Your task to perform on an android device: refresh tabs in the chrome app Image 0: 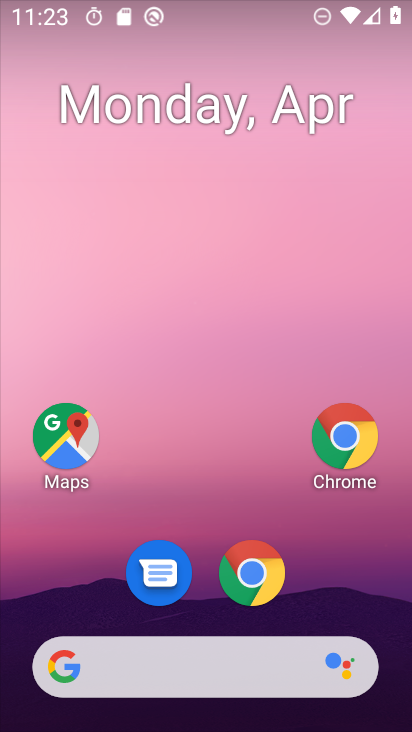
Step 0: drag from (385, 558) to (291, 39)
Your task to perform on an android device: refresh tabs in the chrome app Image 1: 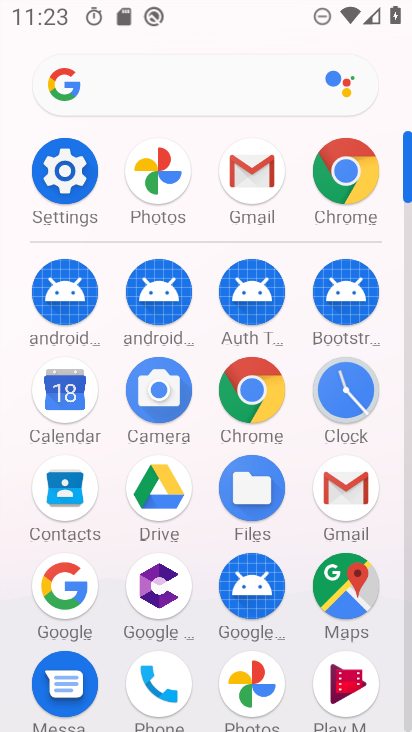
Step 1: click (351, 259)
Your task to perform on an android device: refresh tabs in the chrome app Image 2: 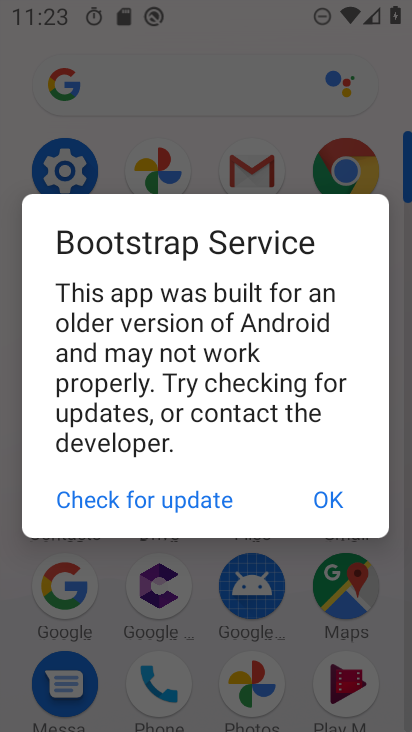
Step 2: click (362, 211)
Your task to perform on an android device: refresh tabs in the chrome app Image 3: 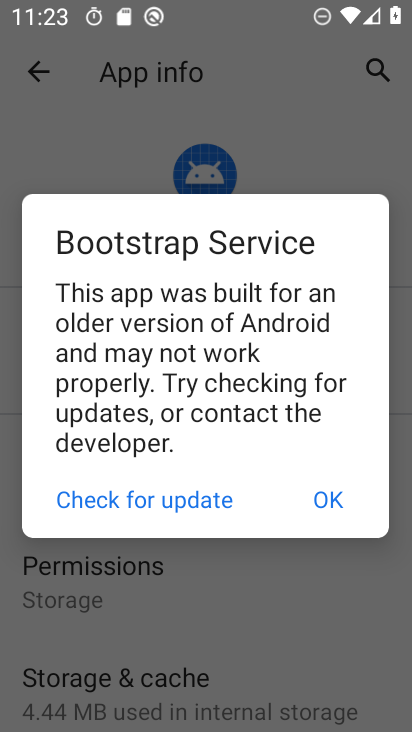
Step 3: click (337, 511)
Your task to perform on an android device: refresh tabs in the chrome app Image 4: 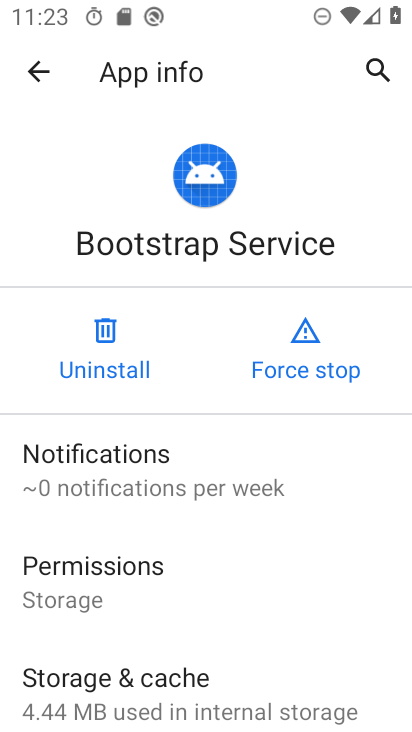
Step 4: click (15, 64)
Your task to perform on an android device: refresh tabs in the chrome app Image 5: 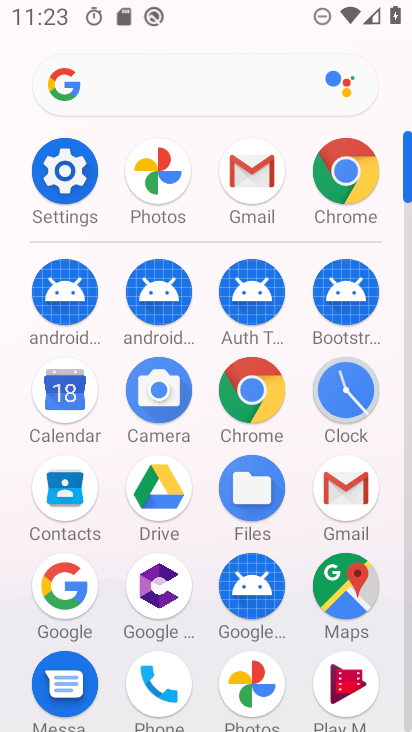
Step 5: click (356, 176)
Your task to perform on an android device: refresh tabs in the chrome app Image 6: 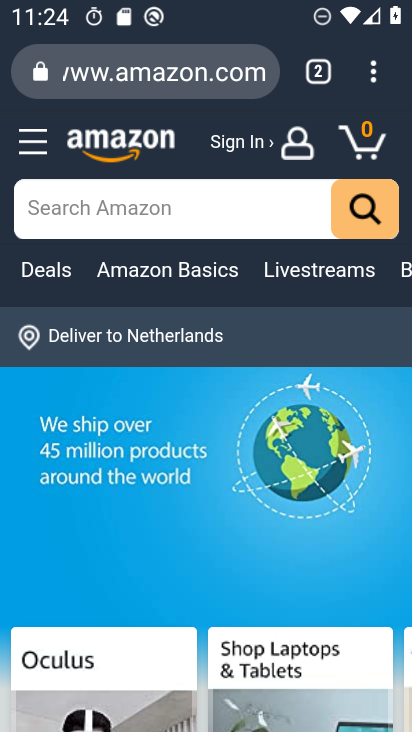
Step 6: click (386, 80)
Your task to perform on an android device: refresh tabs in the chrome app Image 7: 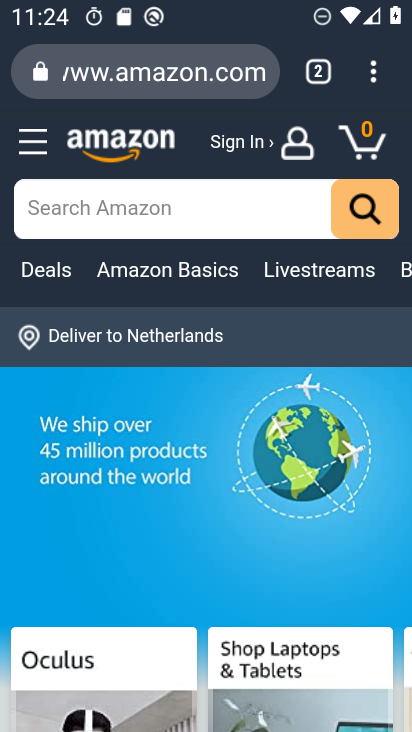
Step 7: task complete